Your task to perform on an android device: snooze an email in the gmail app Image 0: 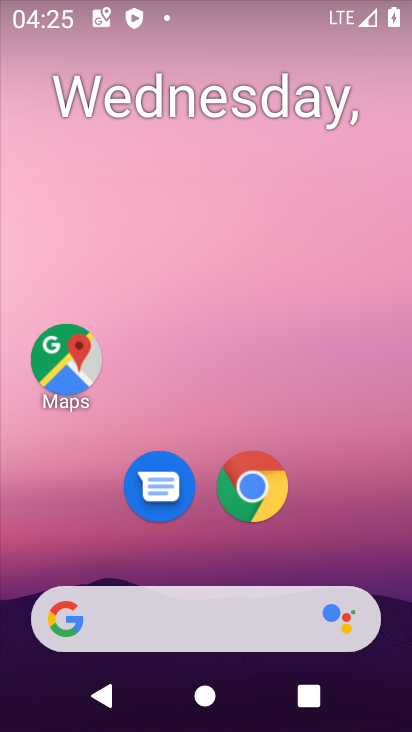
Step 0: drag from (267, 588) to (273, 195)
Your task to perform on an android device: snooze an email in the gmail app Image 1: 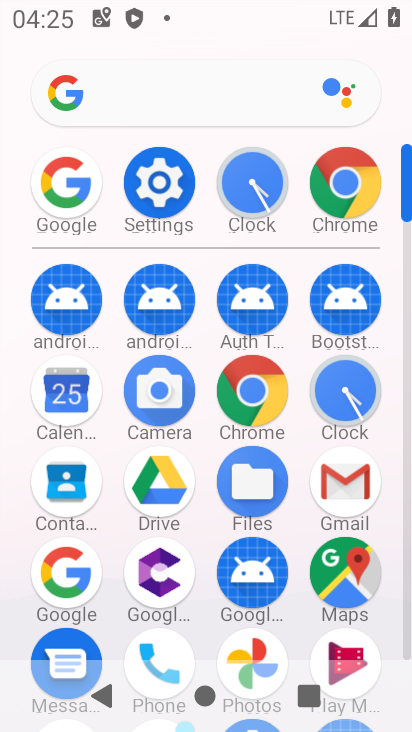
Step 1: click (338, 485)
Your task to perform on an android device: snooze an email in the gmail app Image 2: 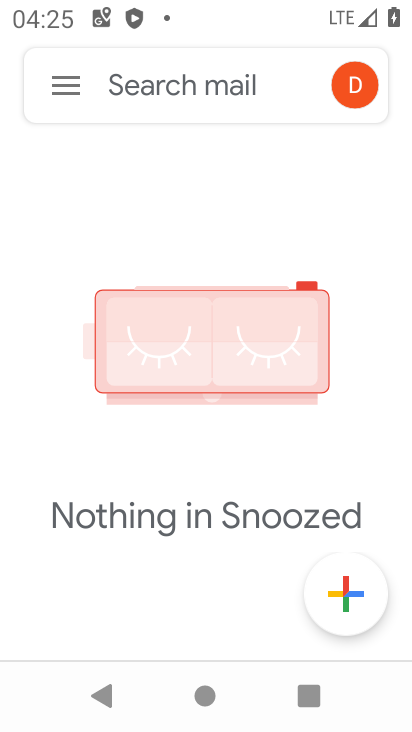
Step 2: task complete